Your task to perform on an android device: turn vacation reply on in the gmail app Image 0: 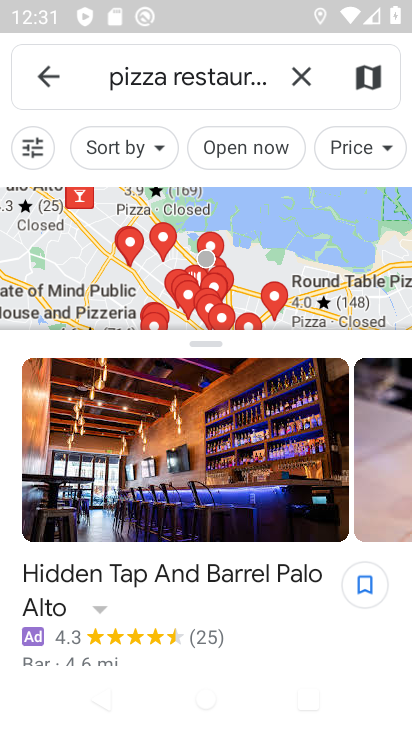
Step 0: press home button
Your task to perform on an android device: turn vacation reply on in the gmail app Image 1: 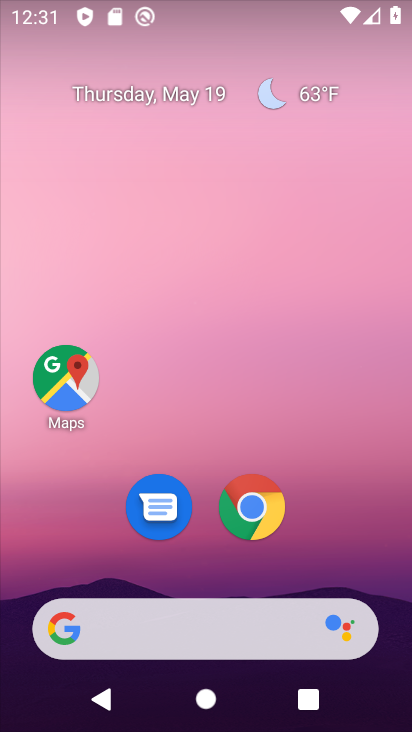
Step 1: drag from (200, 556) to (175, 265)
Your task to perform on an android device: turn vacation reply on in the gmail app Image 2: 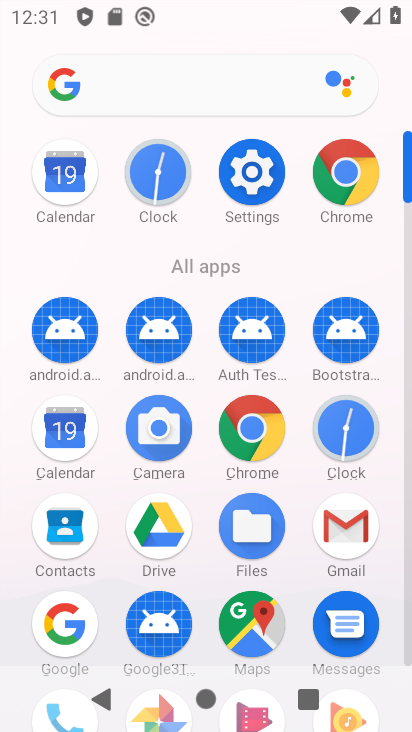
Step 2: click (359, 523)
Your task to perform on an android device: turn vacation reply on in the gmail app Image 3: 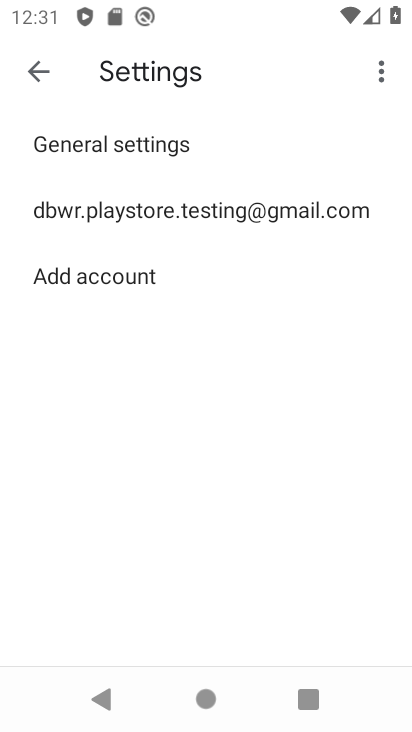
Step 3: click (89, 204)
Your task to perform on an android device: turn vacation reply on in the gmail app Image 4: 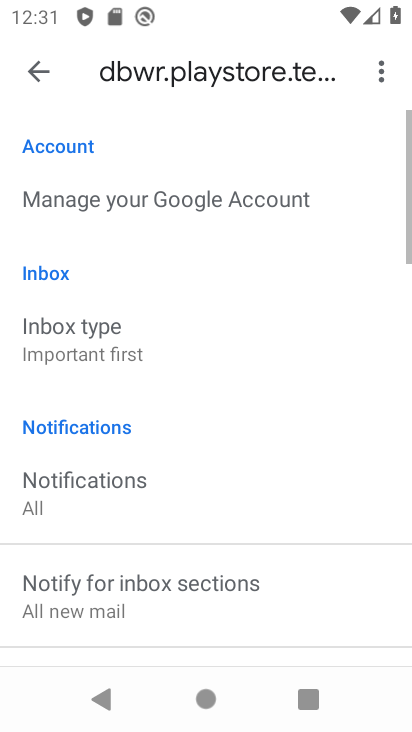
Step 4: drag from (123, 645) to (121, 284)
Your task to perform on an android device: turn vacation reply on in the gmail app Image 5: 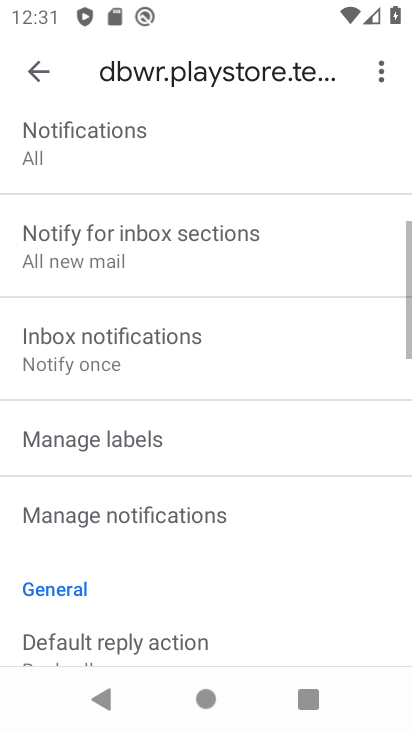
Step 5: drag from (92, 641) to (113, 266)
Your task to perform on an android device: turn vacation reply on in the gmail app Image 6: 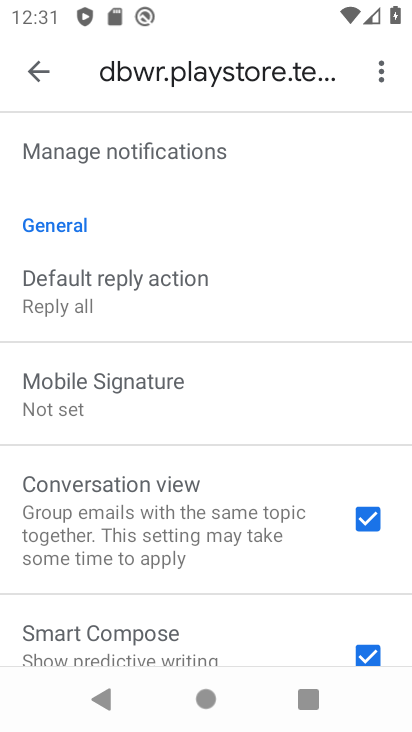
Step 6: drag from (98, 609) to (143, 232)
Your task to perform on an android device: turn vacation reply on in the gmail app Image 7: 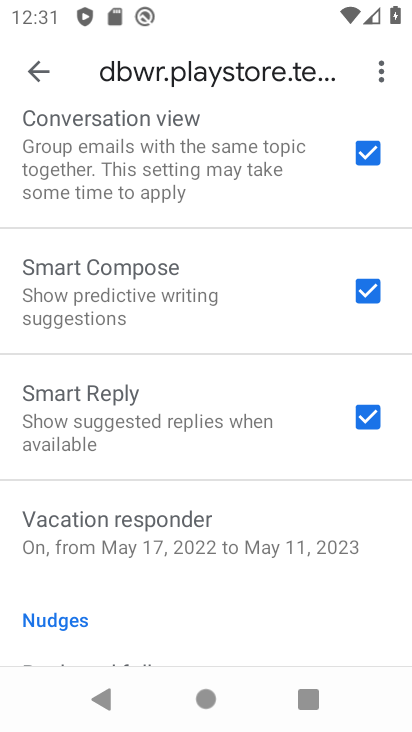
Step 7: click (131, 521)
Your task to perform on an android device: turn vacation reply on in the gmail app Image 8: 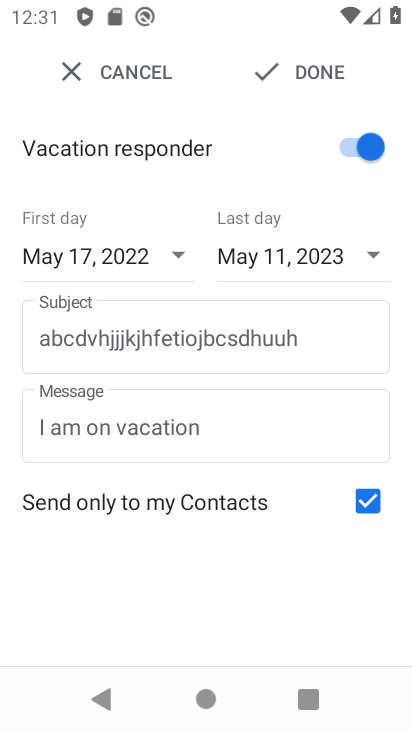
Step 8: click (287, 69)
Your task to perform on an android device: turn vacation reply on in the gmail app Image 9: 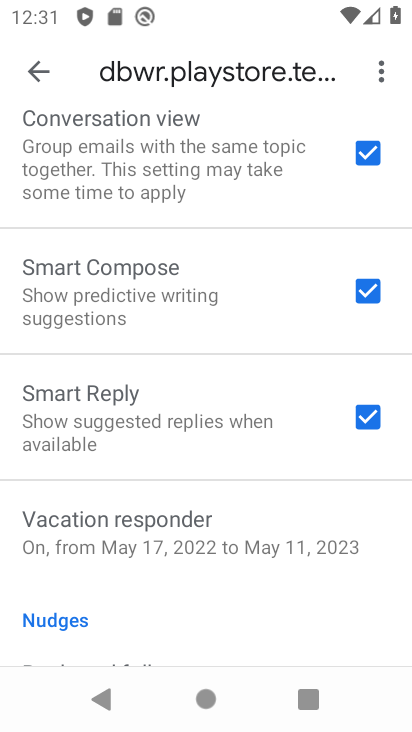
Step 9: task complete